Your task to perform on an android device: What's the weather? Image 0: 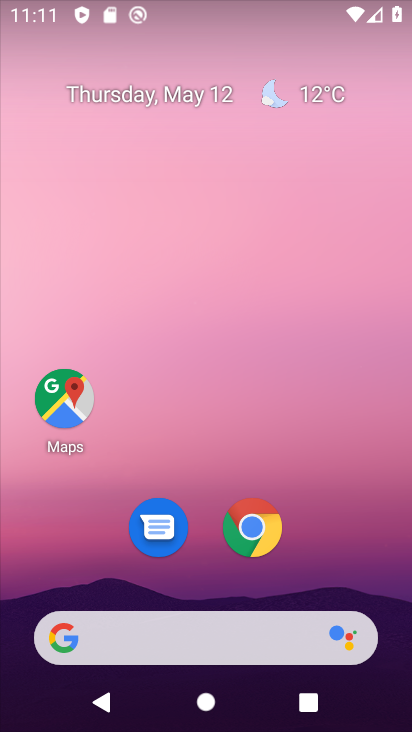
Step 0: click (165, 633)
Your task to perform on an android device: What's the weather? Image 1: 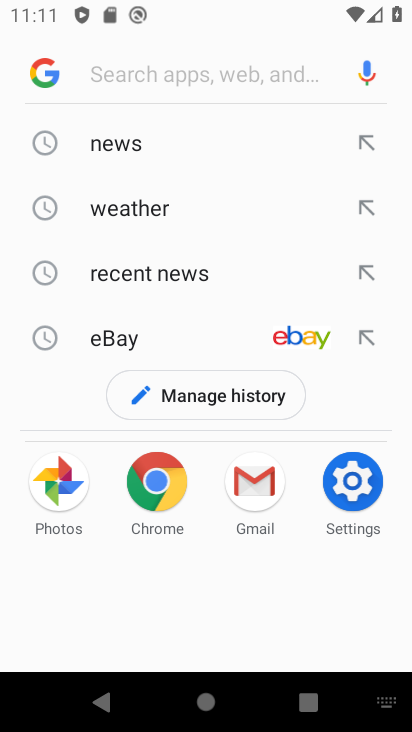
Step 1: click (147, 211)
Your task to perform on an android device: What's the weather? Image 2: 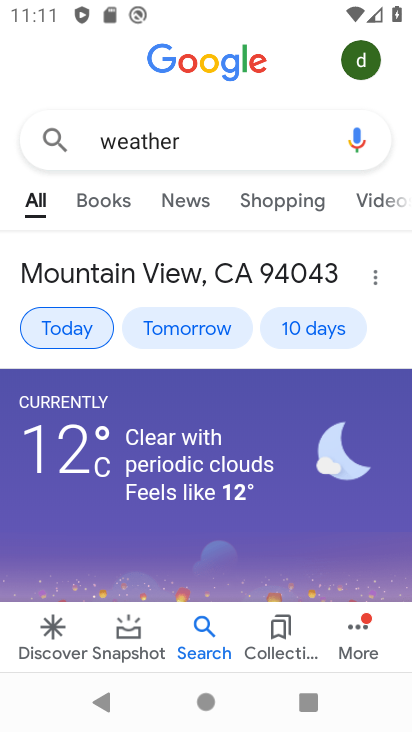
Step 2: task complete